Your task to perform on an android device: check battery use Image 0: 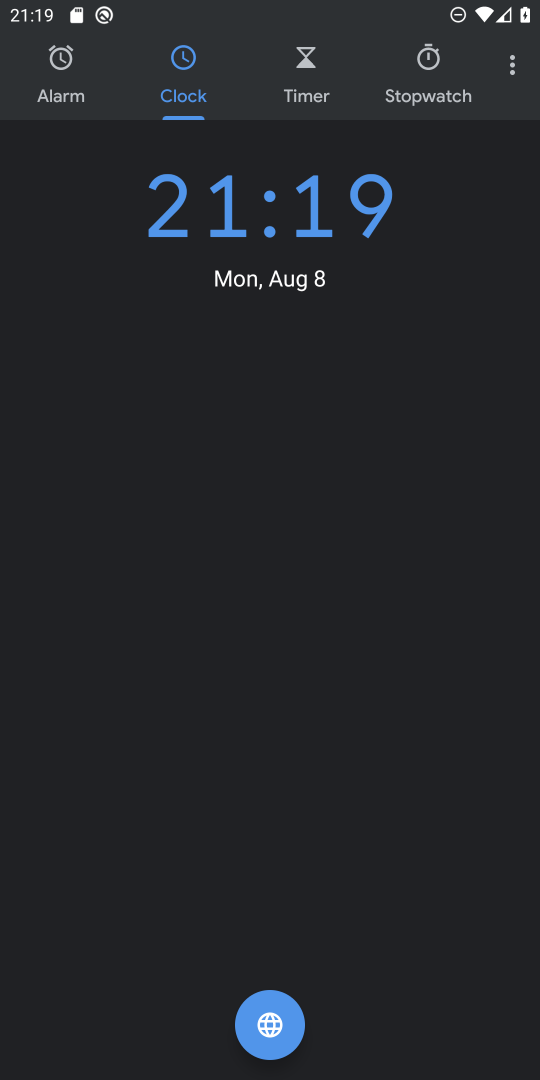
Step 0: press home button
Your task to perform on an android device: check battery use Image 1: 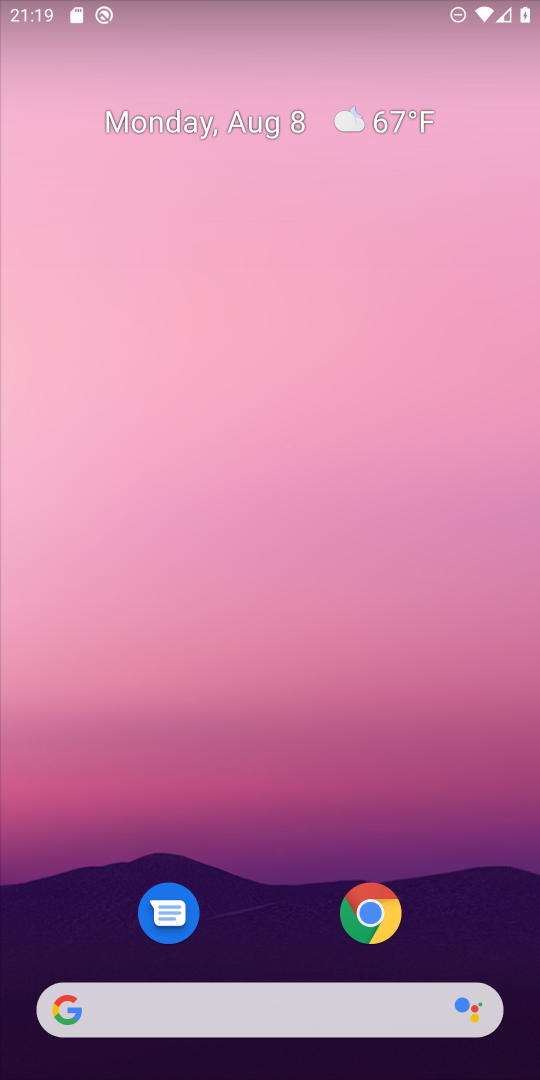
Step 1: drag from (205, 1010) to (308, 293)
Your task to perform on an android device: check battery use Image 2: 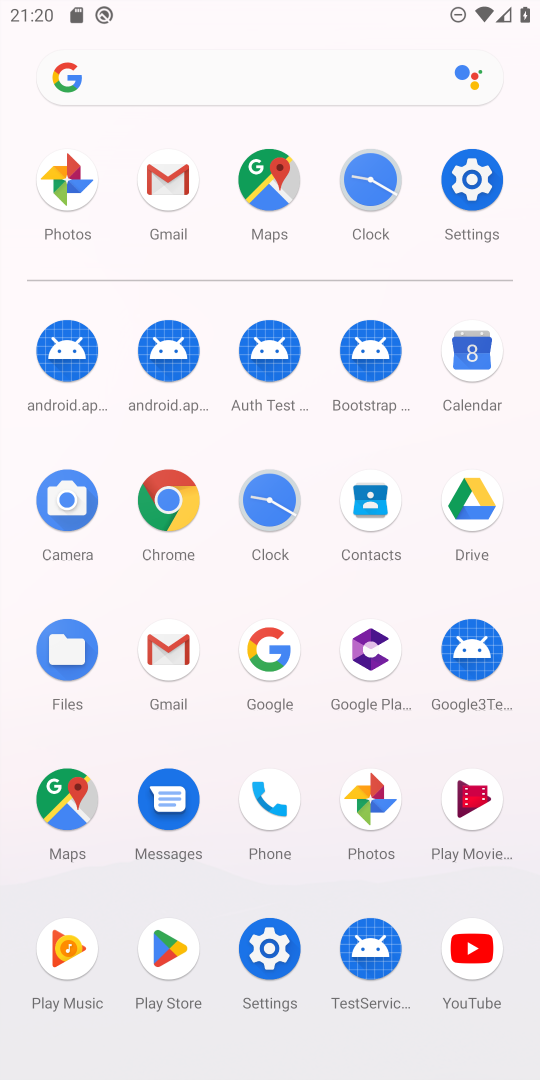
Step 2: click (471, 182)
Your task to perform on an android device: check battery use Image 3: 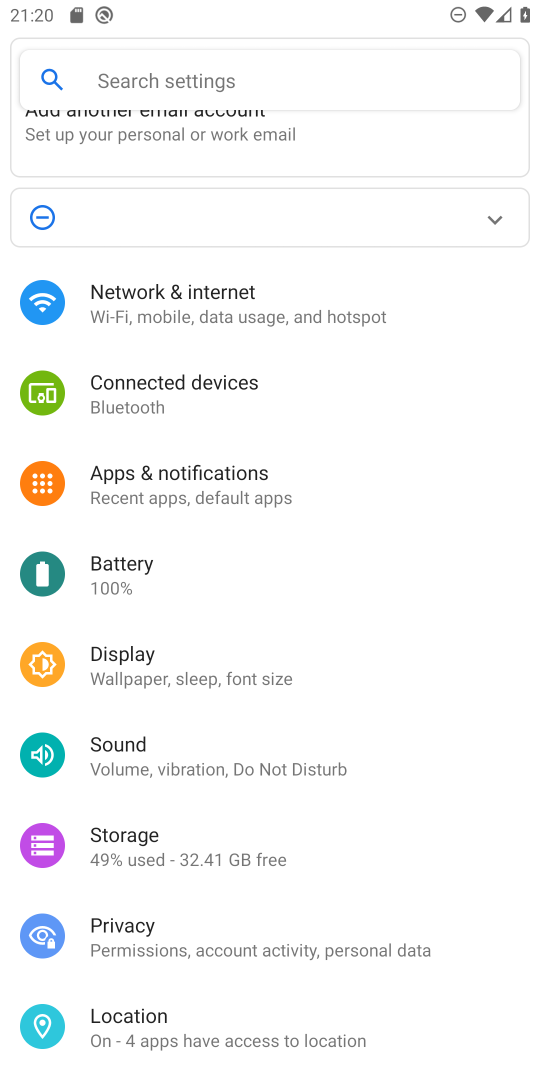
Step 3: click (121, 566)
Your task to perform on an android device: check battery use Image 4: 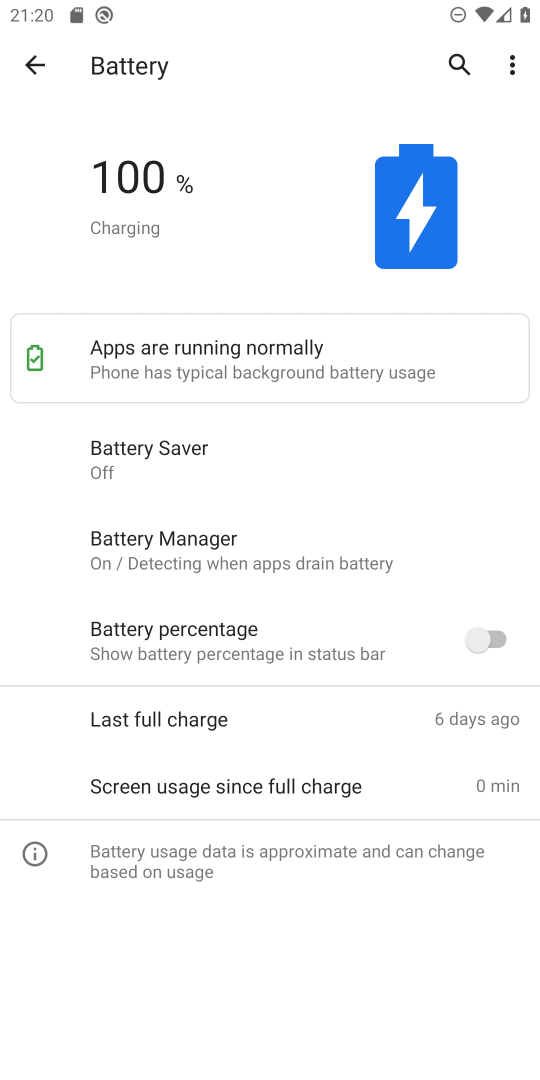
Step 4: click (515, 69)
Your task to perform on an android device: check battery use Image 5: 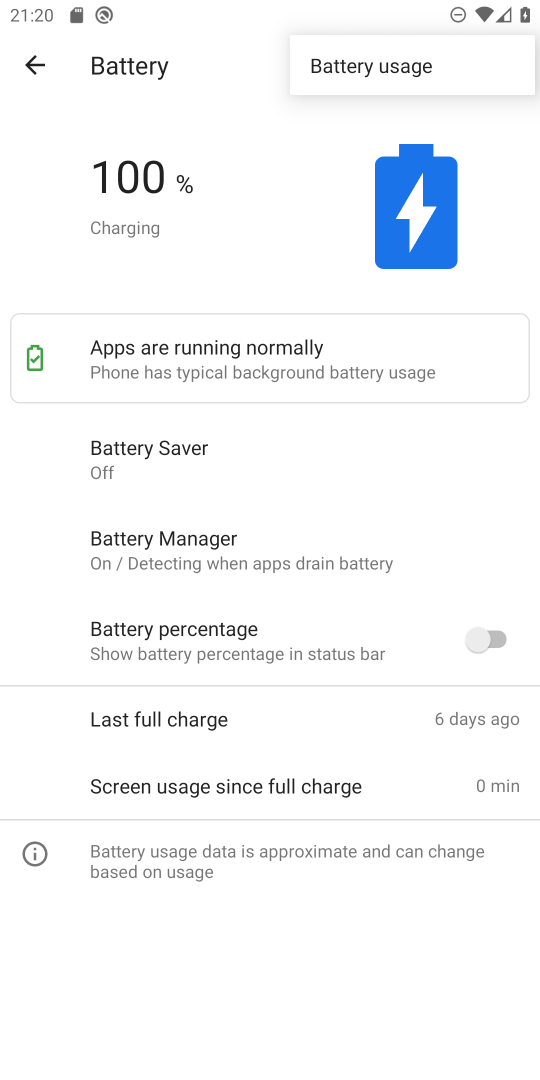
Step 5: click (423, 64)
Your task to perform on an android device: check battery use Image 6: 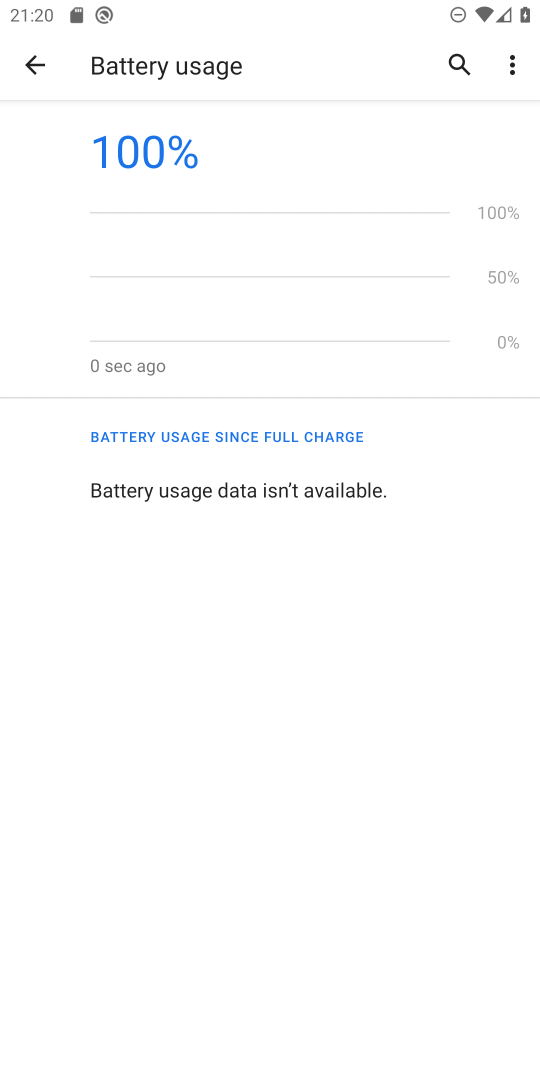
Step 6: task complete